Your task to perform on an android device: Go to privacy settings Image 0: 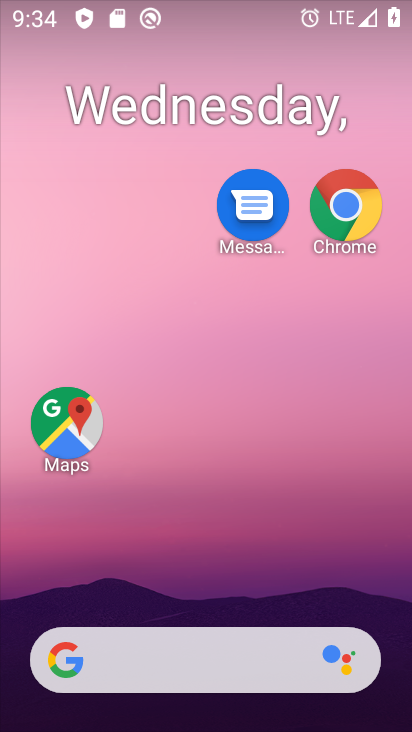
Step 0: drag from (201, 547) to (196, 113)
Your task to perform on an android device: Go to privacy settings Image 1: 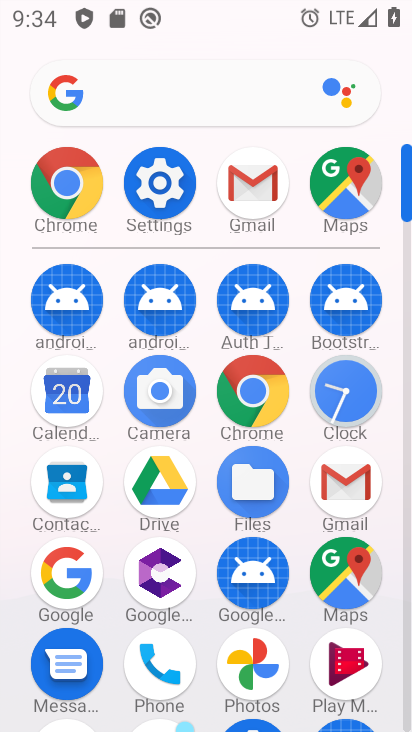
Step 1: click (256, 375)
Your task to perform on an android device: Go to privacy settings Image 2: 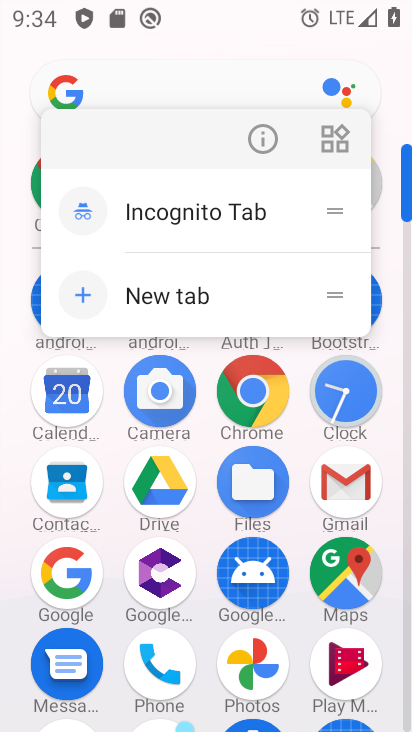
Step 2: click (259, 156)
Your task to perform on an android device: Go to privacy settings Image 3: 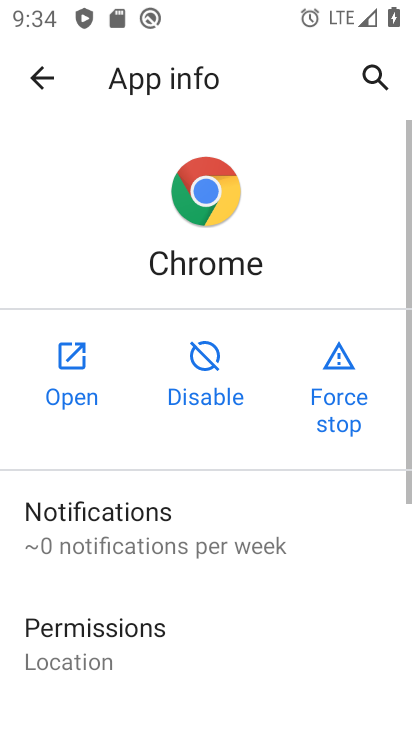
Step 3: press home button
Your task to perform on an android device: Go to privacy settings Image 4: 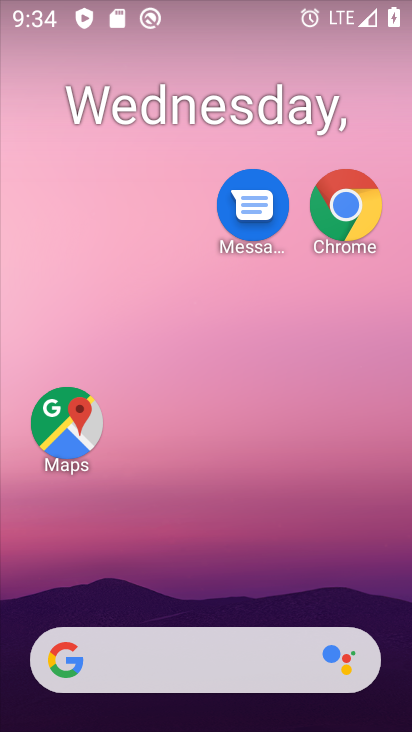
Step 4: drag from (232, 493) to (278, 121)
Your task to perform on an android device: Go to privacy settings Image 5: 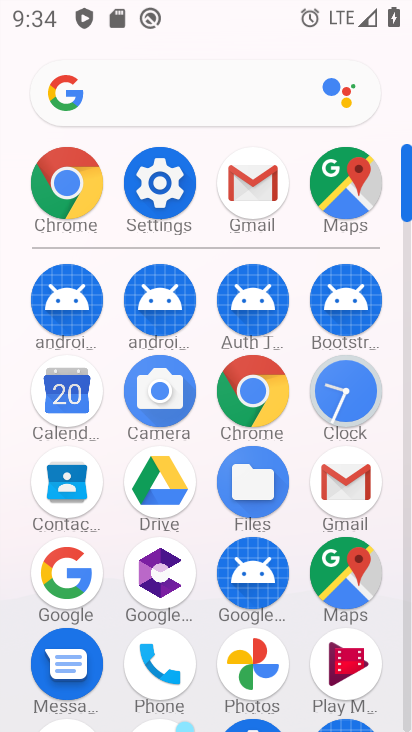
Step 5: click (159, 188)
Your task to perform on an android device: Go to privacy settings Image 6: 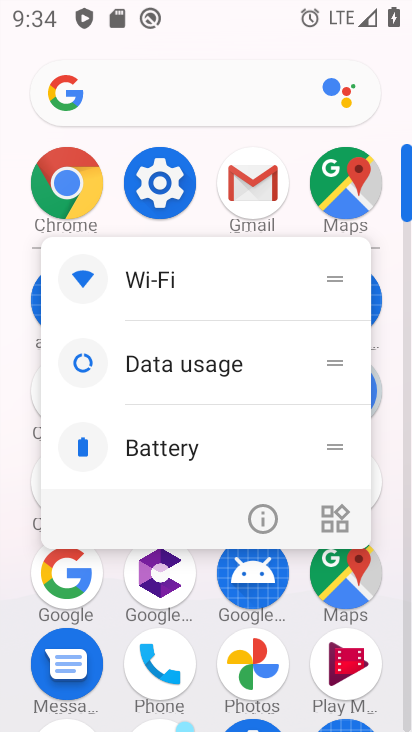
Step 6: click (262, 520)
Your task to perform on an android device: Go to privacy settings Image 7: 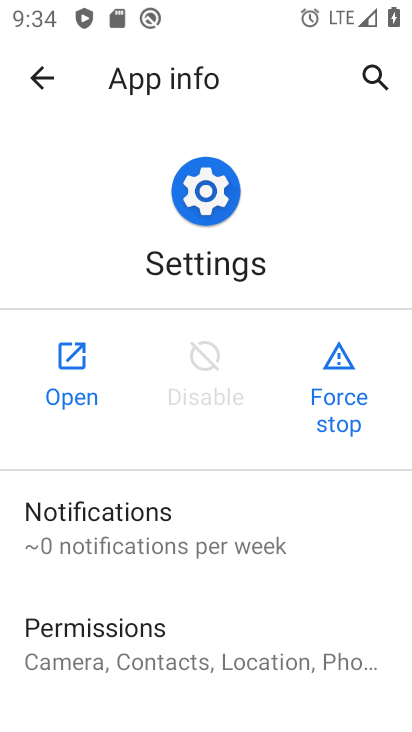
Step 7: click (74, 372)
Your task to perform on an android device: Go to privacy settings Image 8: 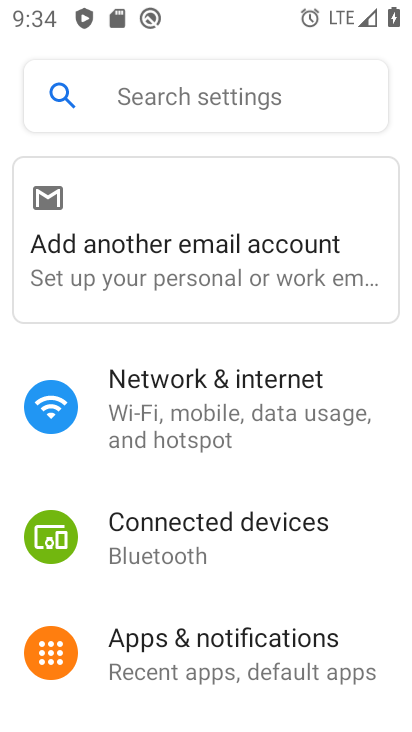
Step 8: drag from (221, 493) to (311, 106)
Your task to perform on an android device: Go to privacy settings Image 9: 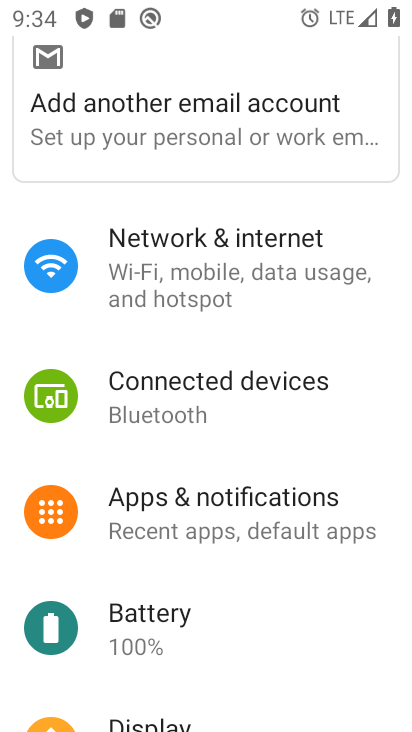
Step 9: drag from (240, 643) to (307, 137)
Your task to perform on an android device: Go to privacy settings Image 10: 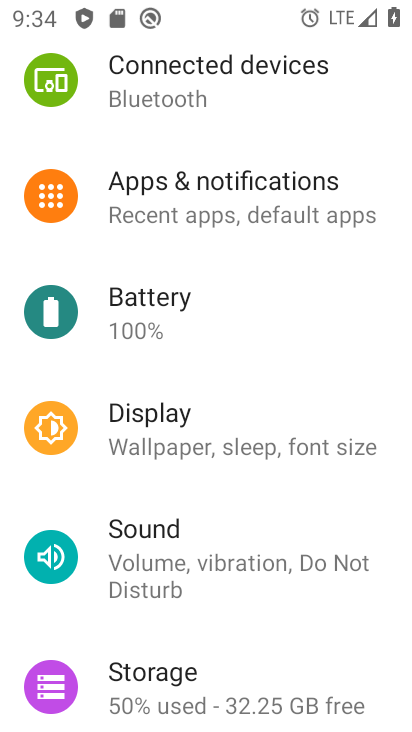
Step 10: drag from (206, 523) to (274, 15)
Your task to perform on an android device: Go to privacy settings Image 11: 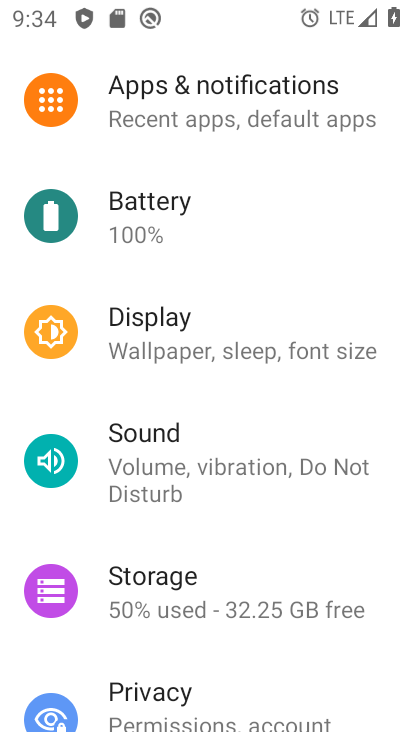
Step 11: click (187, 685)
Your task to perform on an android device: Go to privacy settings Image 12: 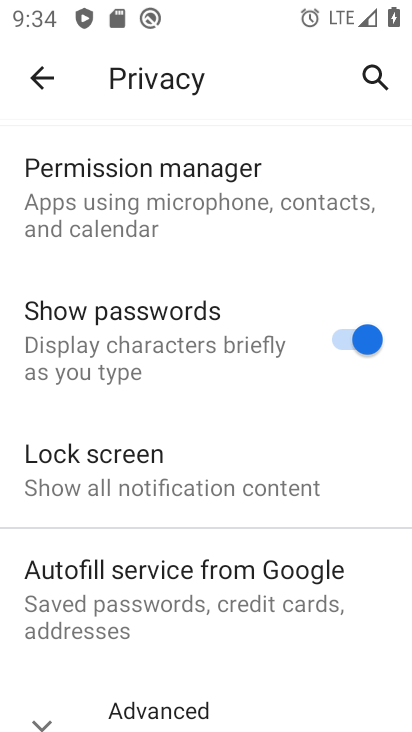
Step 12: task complete